Your task to perform on an android device: open sync settings in chrome Image 0: 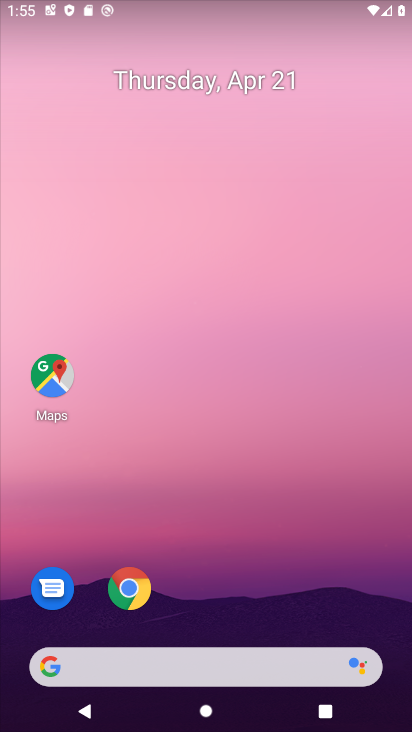
Step 0: drag from (218, 580) to (224, 205)
Your task to perform on an android device: open sync settings in chrome Image 1: 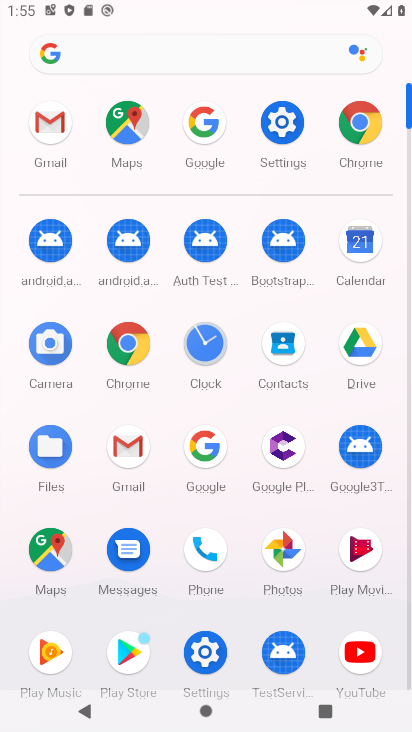
Step 1: click (364, 146)
Your task to perform on an android device: open sync settings in chrome Image 2: 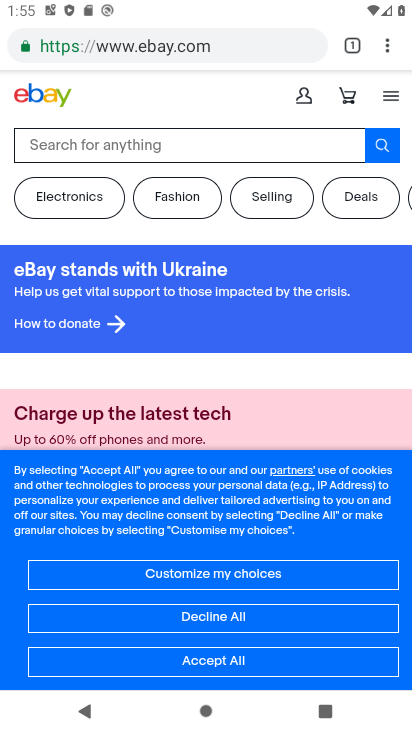
Step 2: click (389, 52)
Your task to perform on an android device: open sync settings in chrome Image 3: 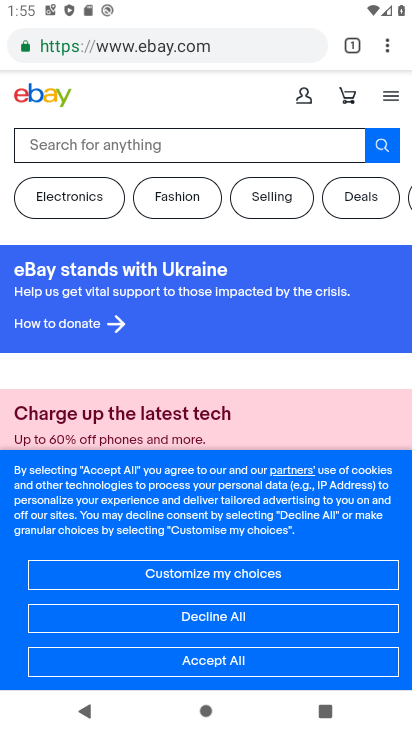
Step 3: click (389, 52)
Your task to perform on an android device: open sync settings in chrome Image 4: 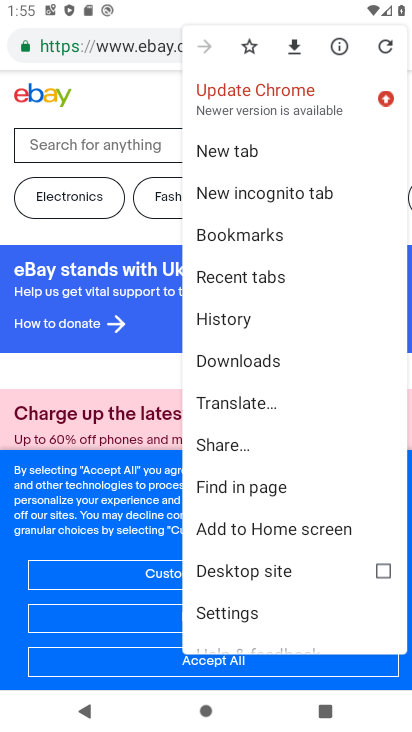
Step 4: click (262, 604)
Your task to perform on an android device: open sync settings in chrome Image 5: 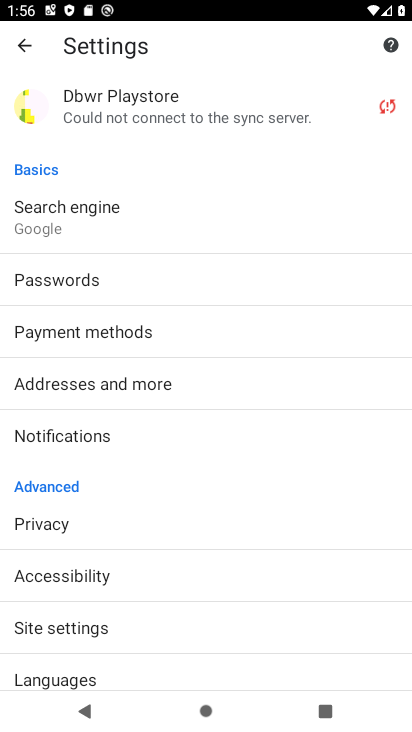
Step 5: click (198, 101)
Your task to perform on an android device: open sync settings in chrome Image 6: 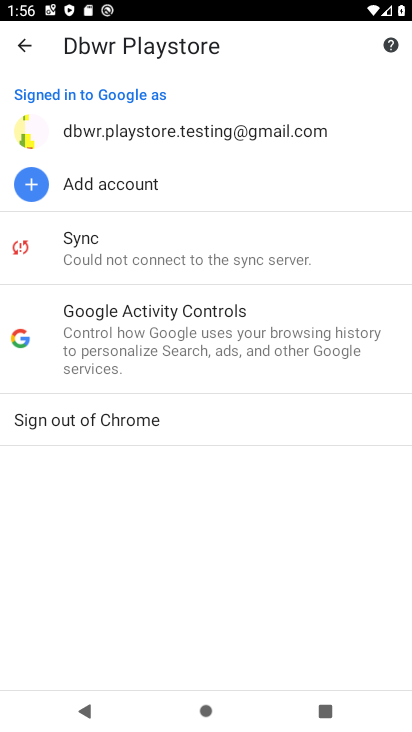
Step 6: click (169, 240)
Your task to perform on an android device: open sync settings in chrome Image 7: 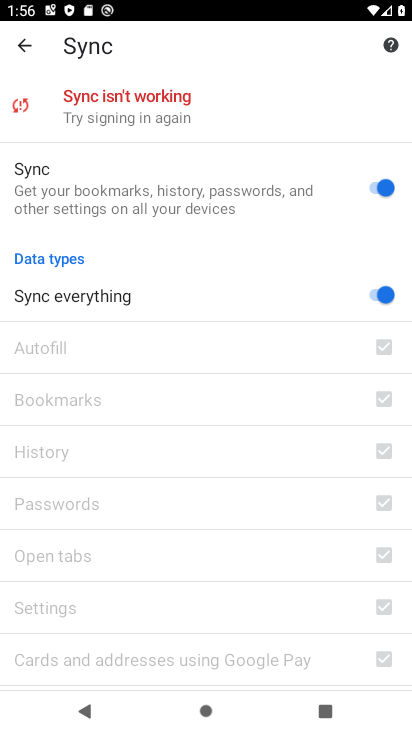
Step 7: click (176, 204)
Your task to perform on an android device: open sync settings in chrome Image 8: 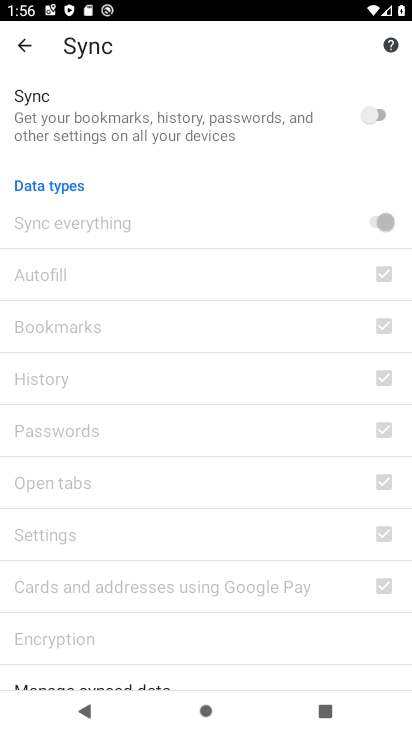
Step 8: task complete